Your task to perform on an android device: make emails show in primary in the gmail app Image 0: 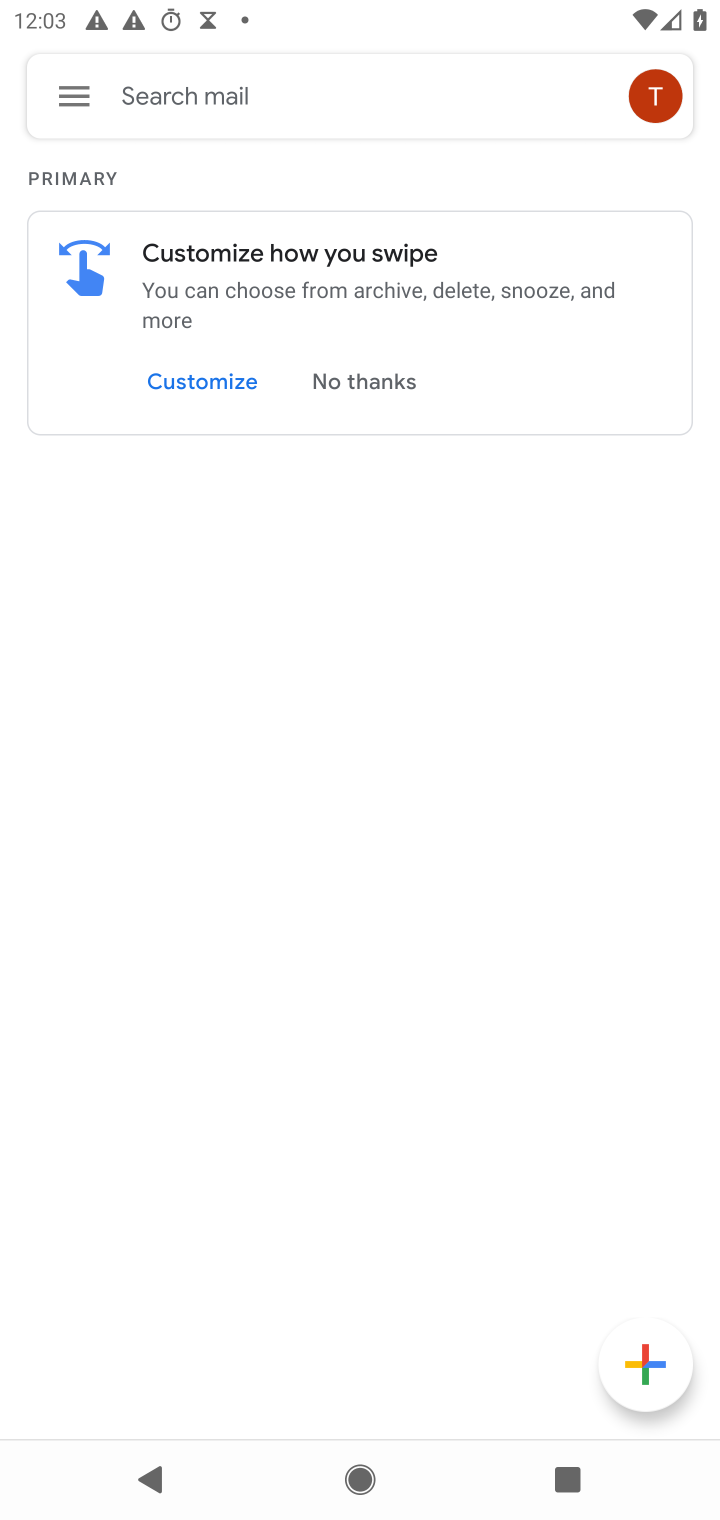
Step 0: press home button
Your task to perform on an android device: make emails show in primary in the gmail app Image 1: 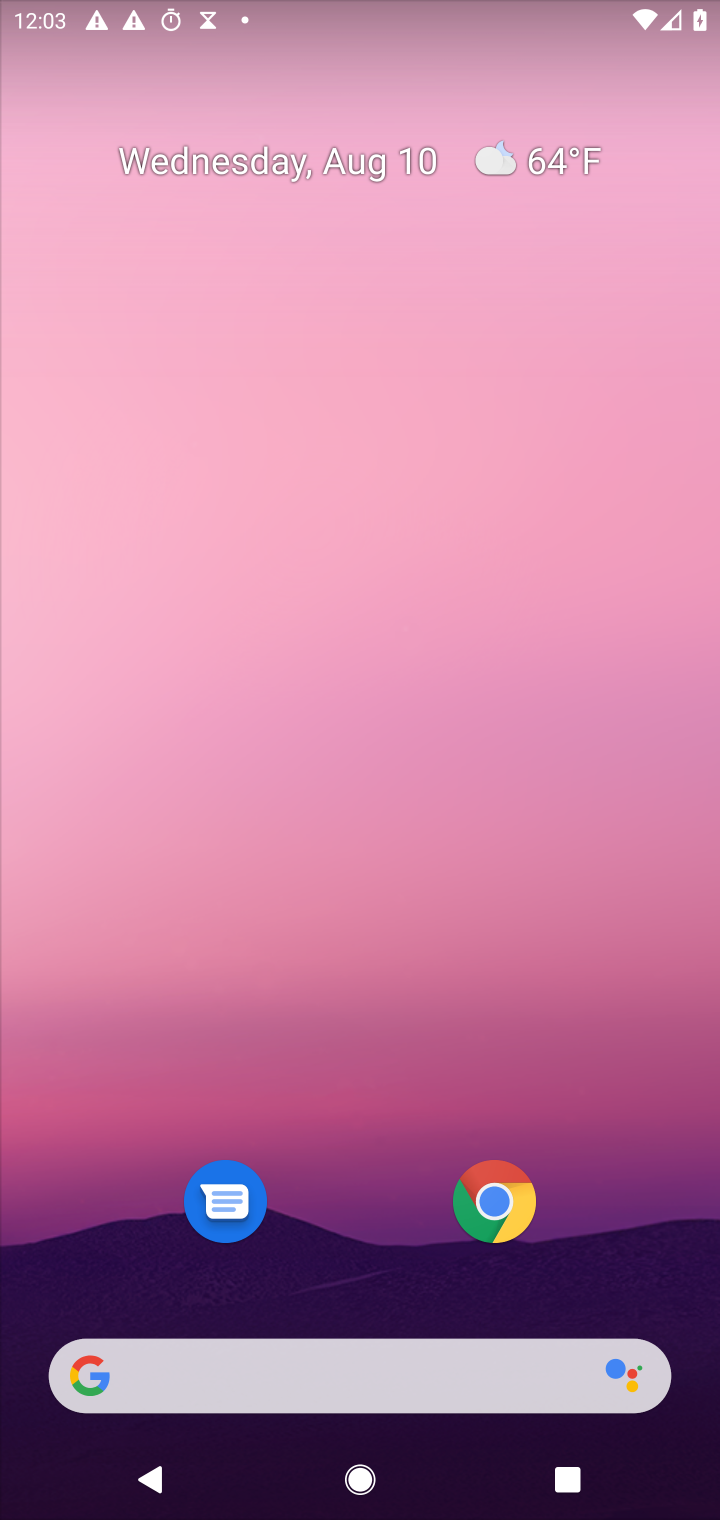
Step 1: drag from (402, 1247) to (394, 171)
Your task to perform on an android device: make emails show in primary in the gmail app Image 2: 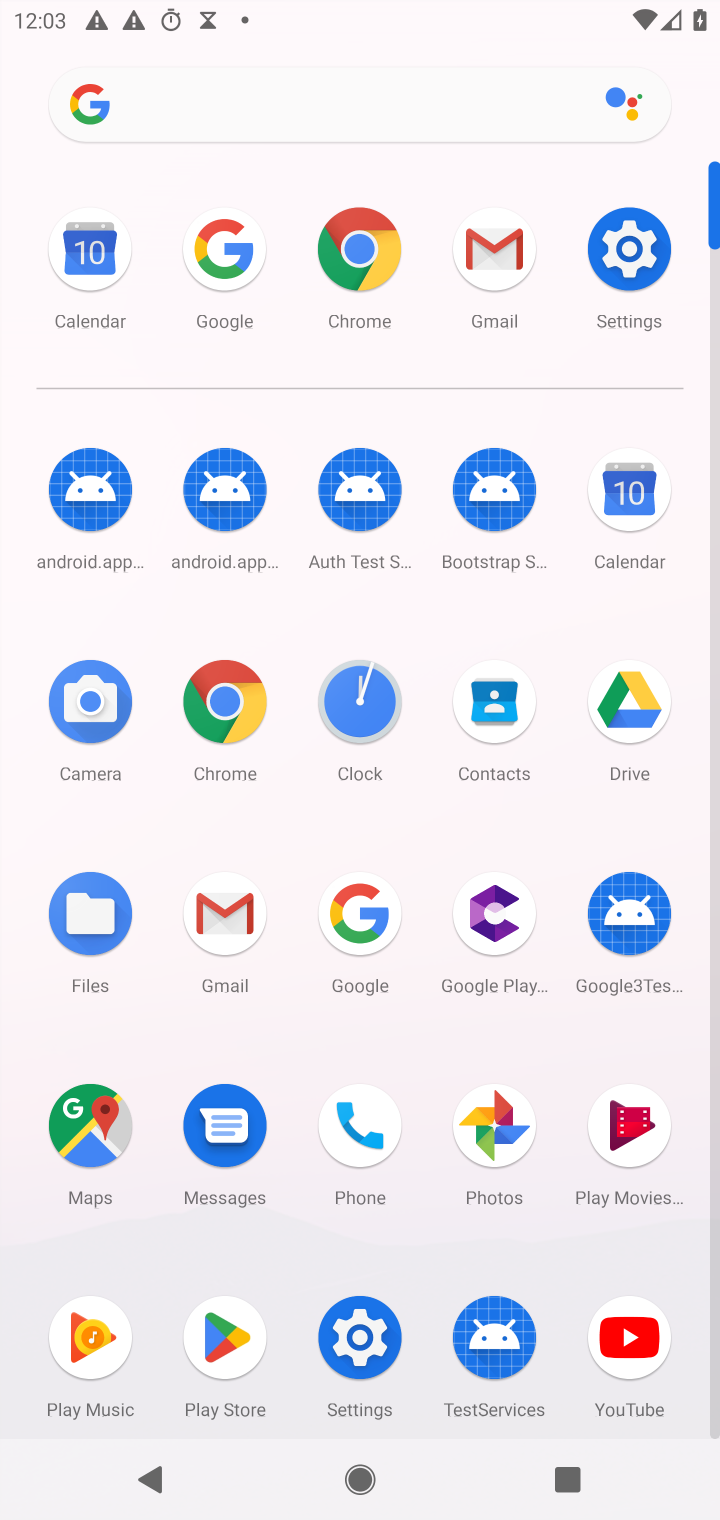
Step 2: click (486, 252)
Your task to perform on an android device: make emails show in primary in the gmail app Image 3: 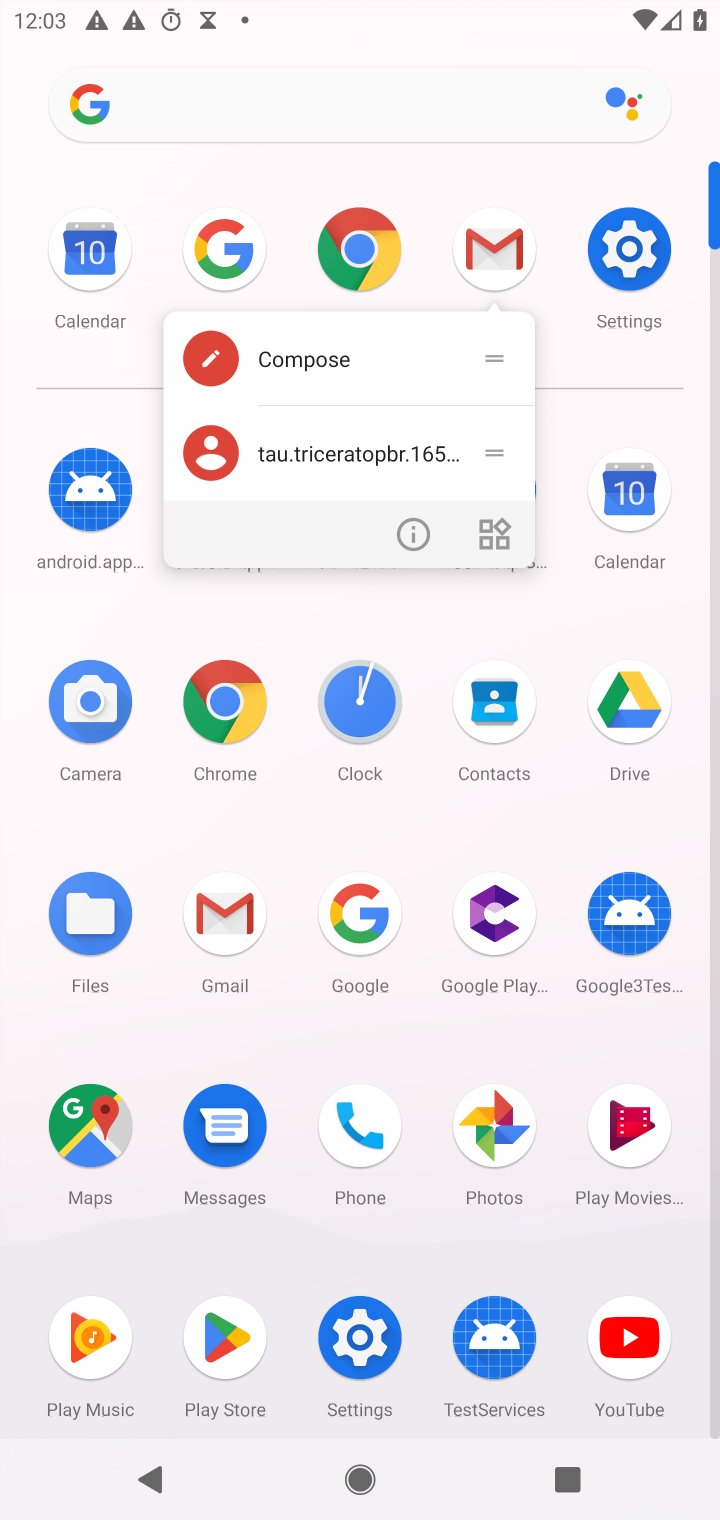
Step 3: click (486, 247)
Your task to perform on an android device: make emails show in primary in the gmail app Image 4: 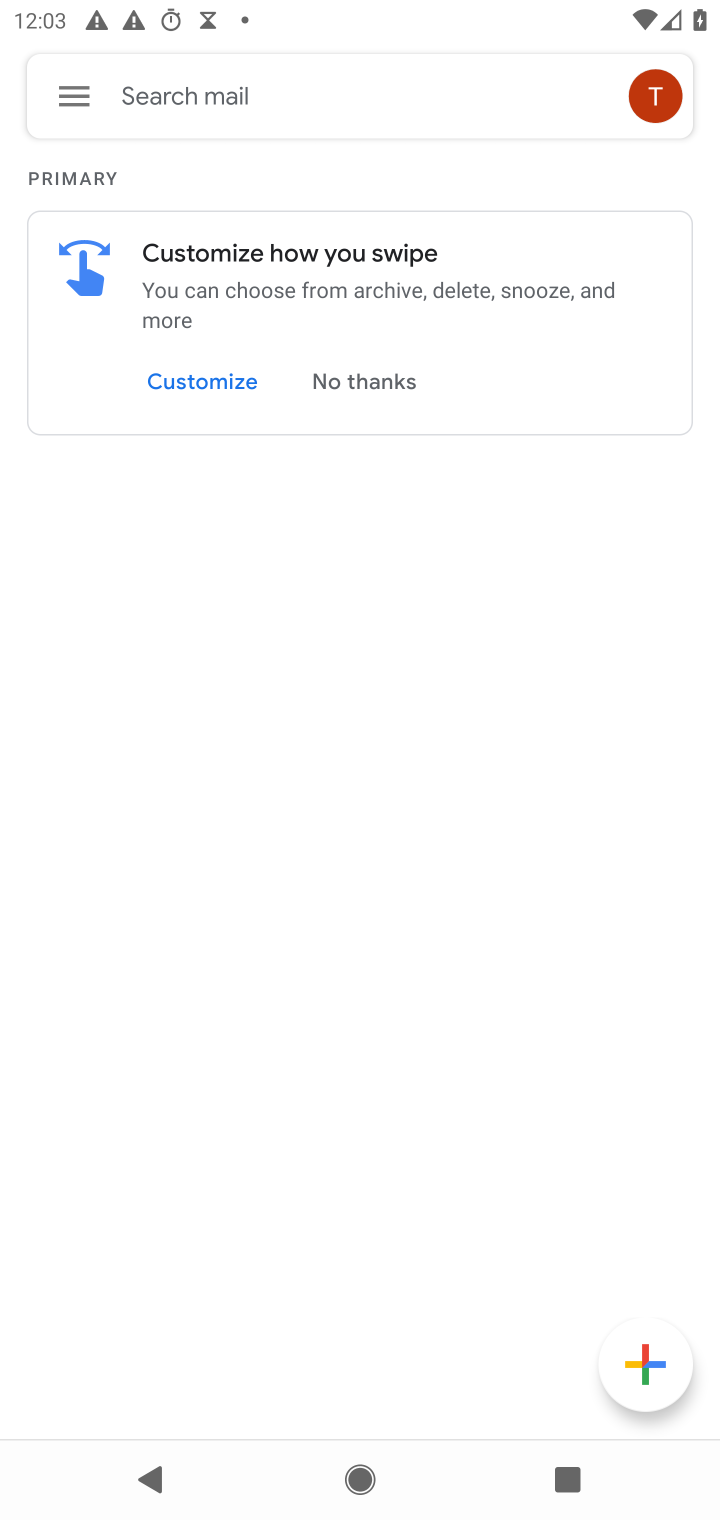
Step 4: click (82, 83)
Your task to perform on an android device: make emails show in primary in the gmail app Image 5: 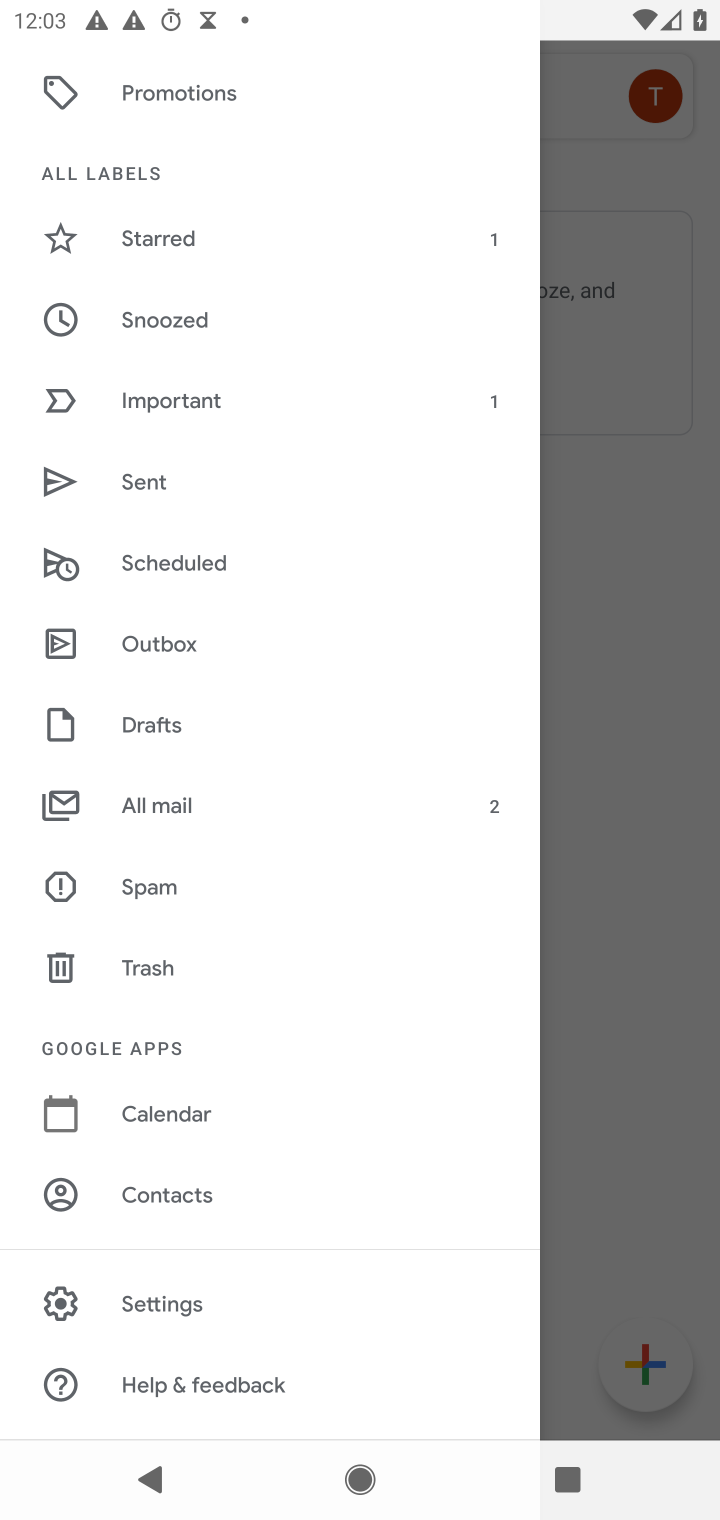
Step 5: click (203, 1297)
Your task to perform on an android device: make emails show in primary in the gmail app Image 6: 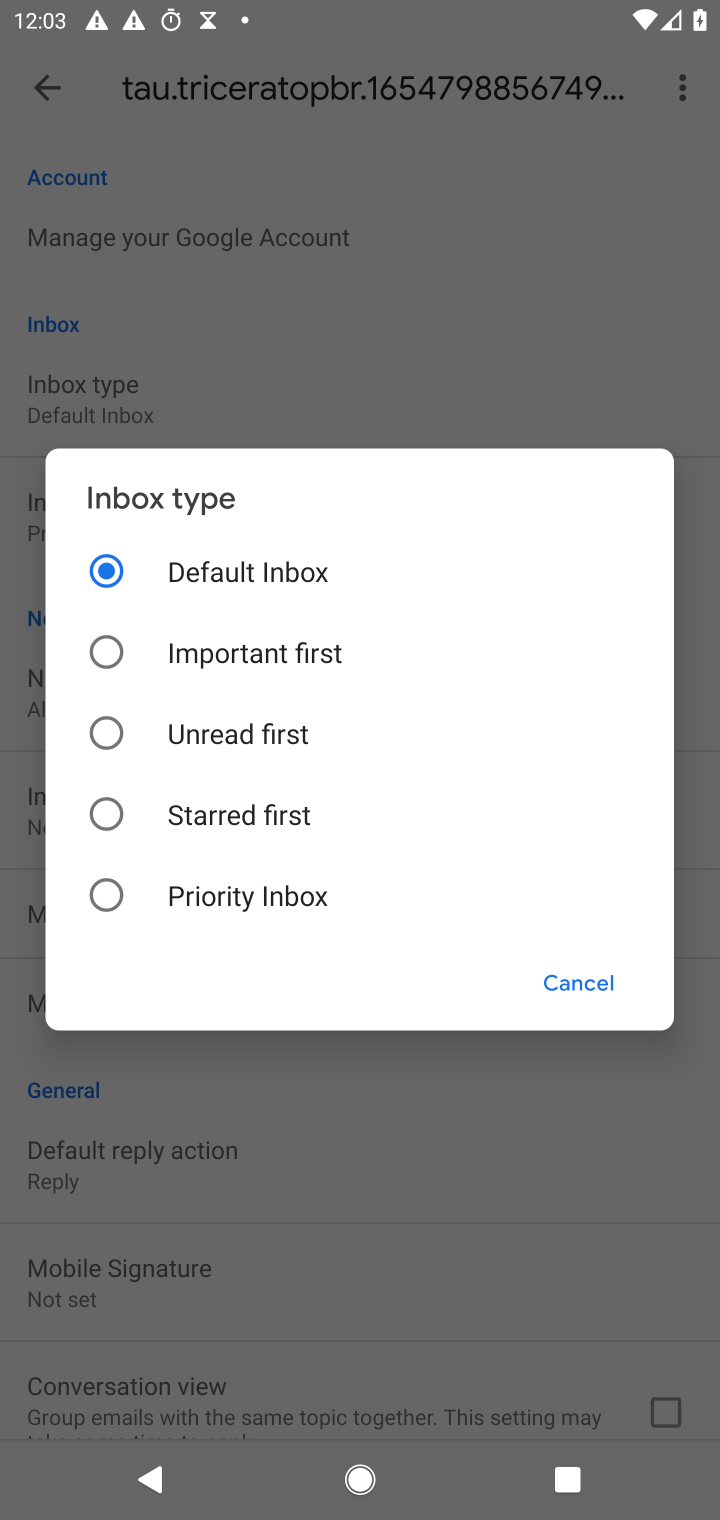
Step 6: click (444, 360)
Your task to perform on an android device: make emails show in primary in the gmail app Image 7: 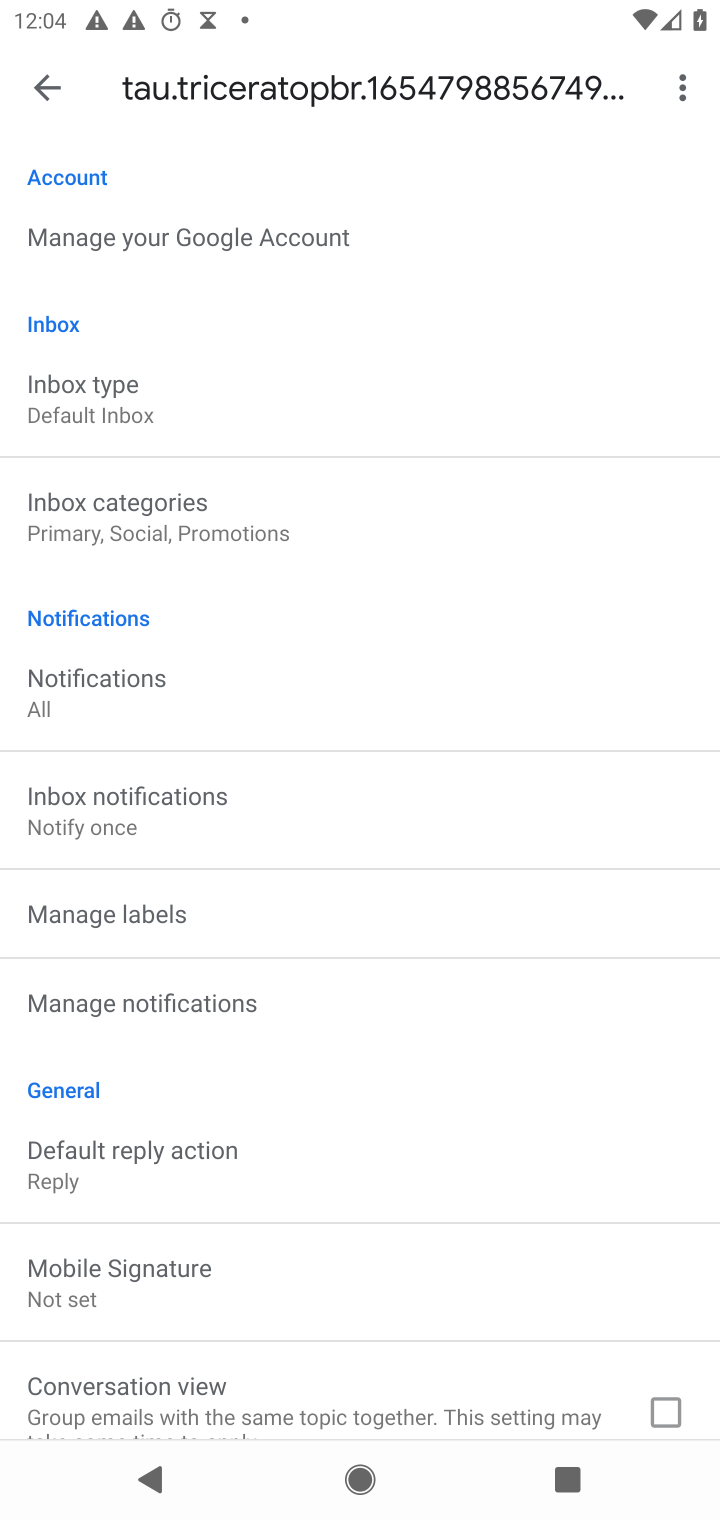
Step 7: click (57, 515)
Your task to perform on an android device: make emails show in primary in the gmail app Image 8: 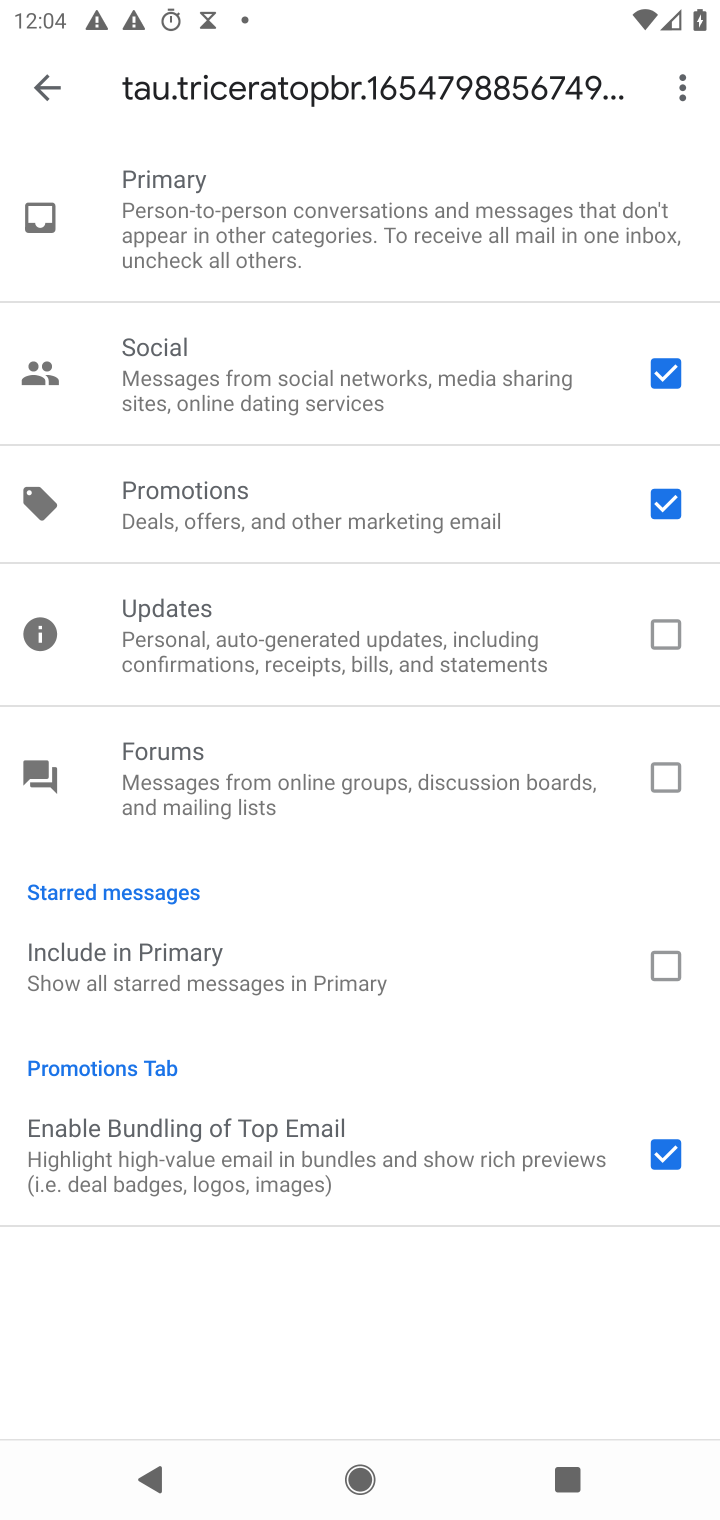
Step 8: click (658, 386)
Your task to perform on an android device: make emails show in primary in the gmail app Image 9: 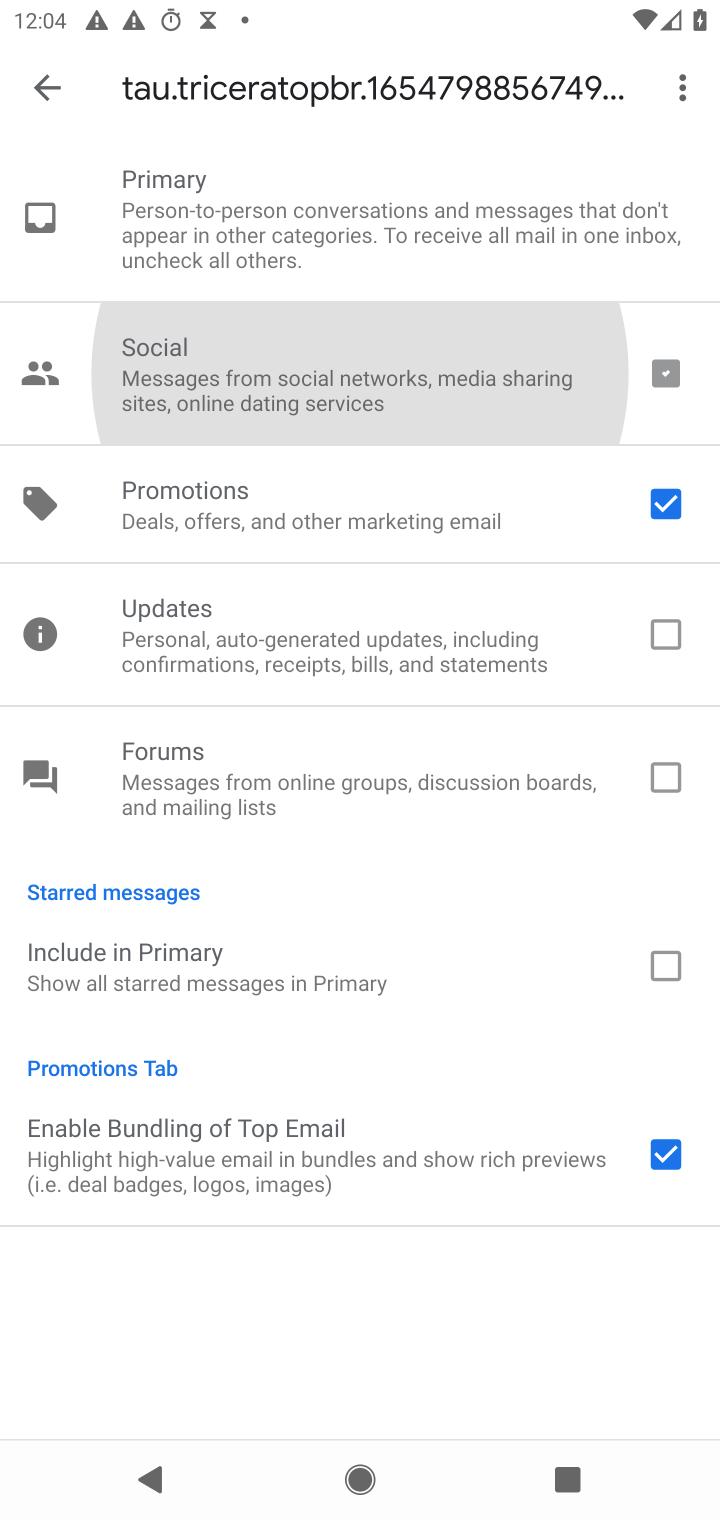
Step 9: click (658, 514)
Your task to perform on an android device: make emails show in primary in the gmail app Image 10: 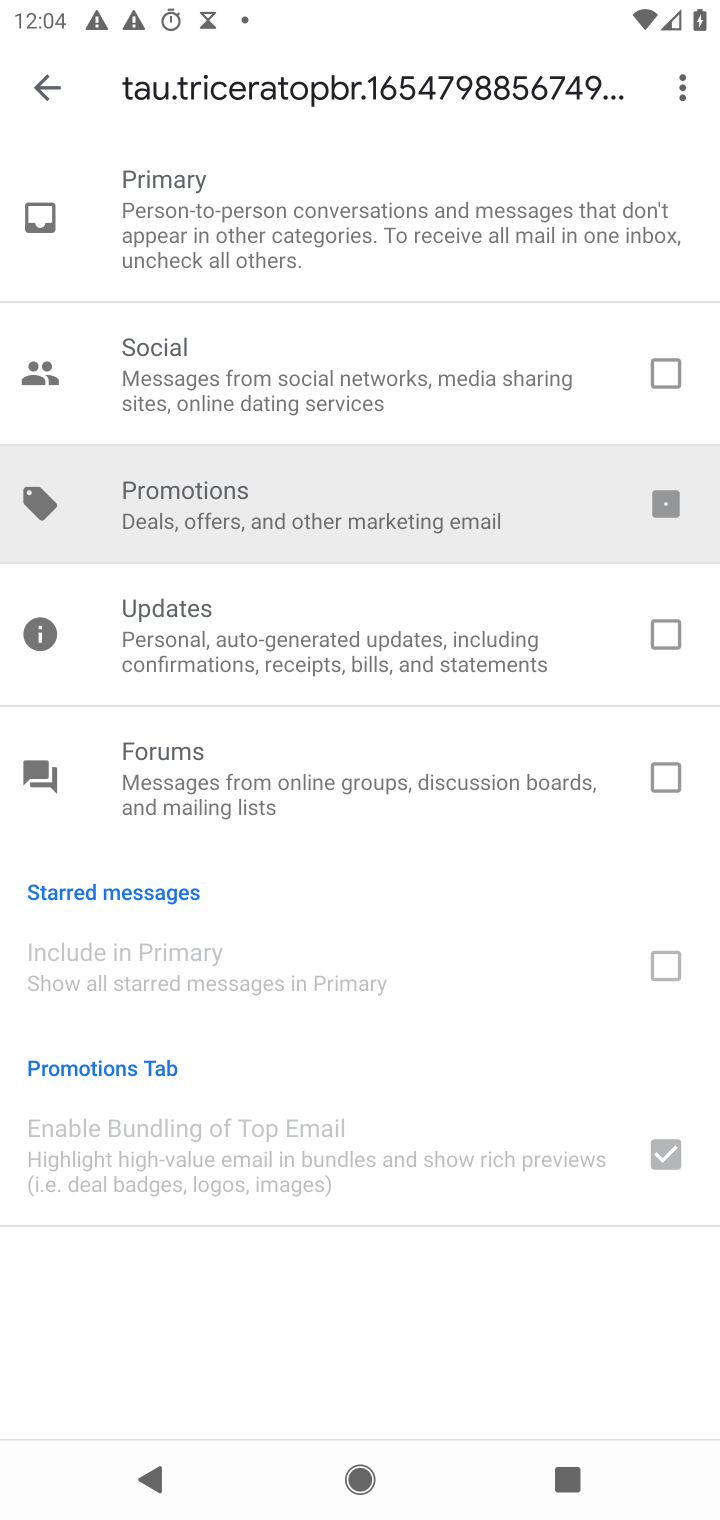
Step 10: click (671, 1163)
Your task to perform on an android device: make emails show in primary in the gmail app Image 11: 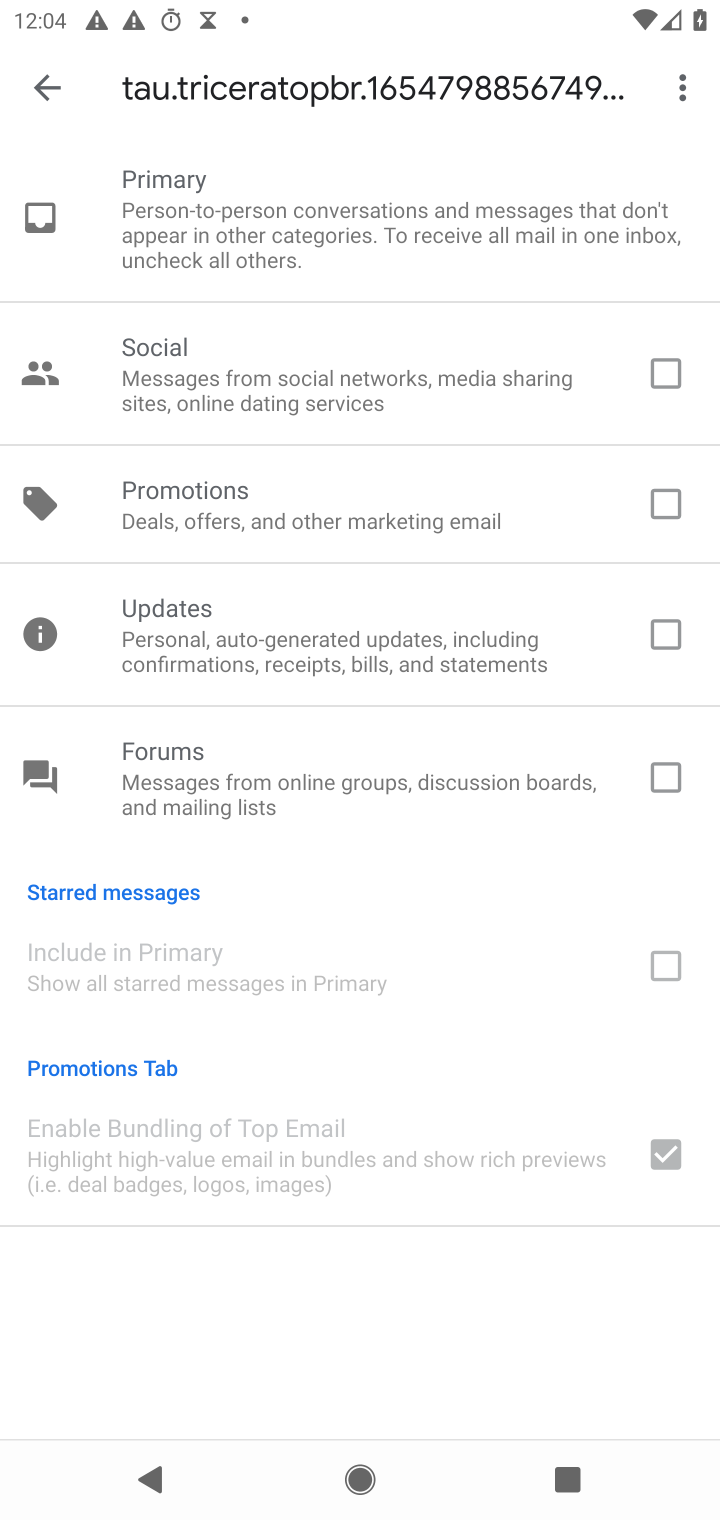
Step 11: task complete